Your task to perform on an android device: turn smart compose on in the gmail app Image 0: 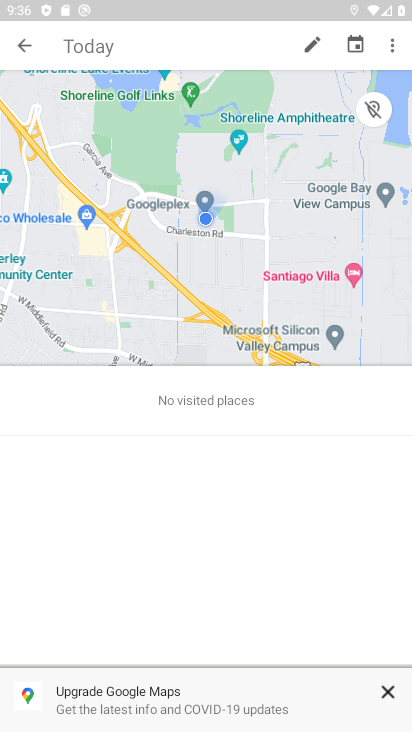
Step 0: press home button
Your task to perform on an android device: turn smart compose on in the gmail app Image 1: 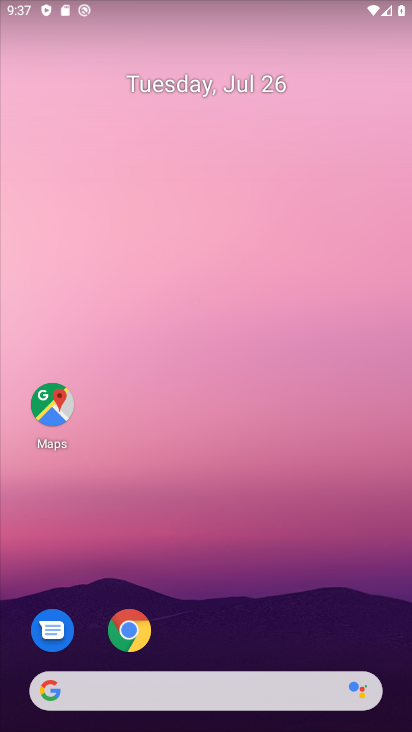
Step 1: drag from (389, 633) to (361, 100)
Your task to perform on an android device: turn smart compose on in the gmail app Image 2: 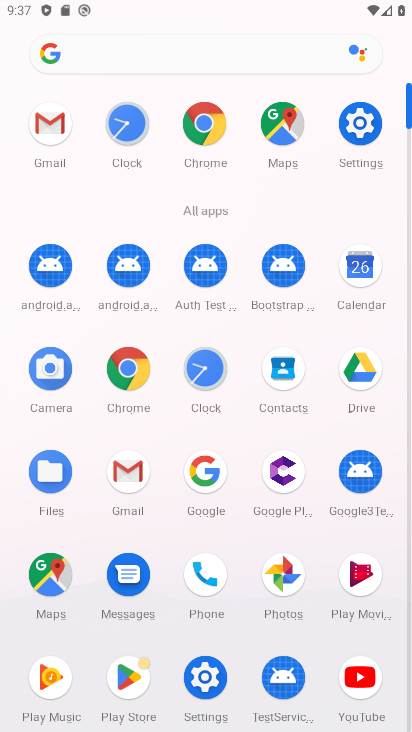
Step 2: click (125, 471)
Your task to perform on an android device: turn smart compose on in the gmail app Image 3: 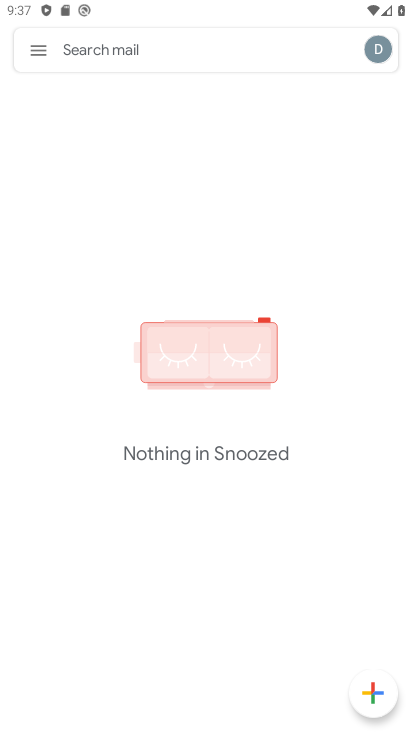
Step 3: click (33, 52)
Your task to perform on an android device: turn smart compose on in the gmail app Image 4: 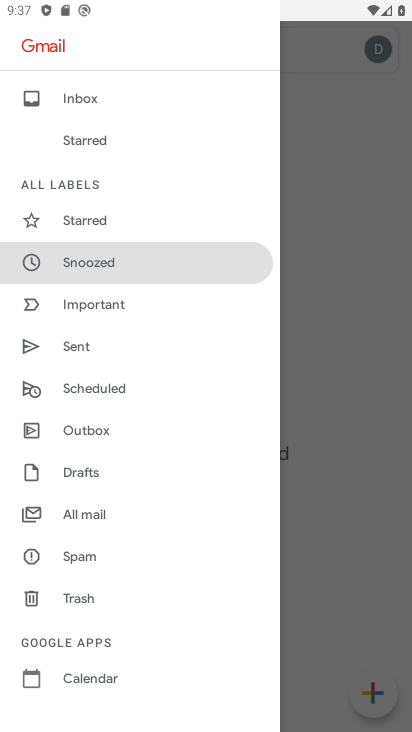
Step 4: drag from (180, 640) to (206, 346)
Your task to perform on an android device: turn smart compose on in the gmail app Image 5: 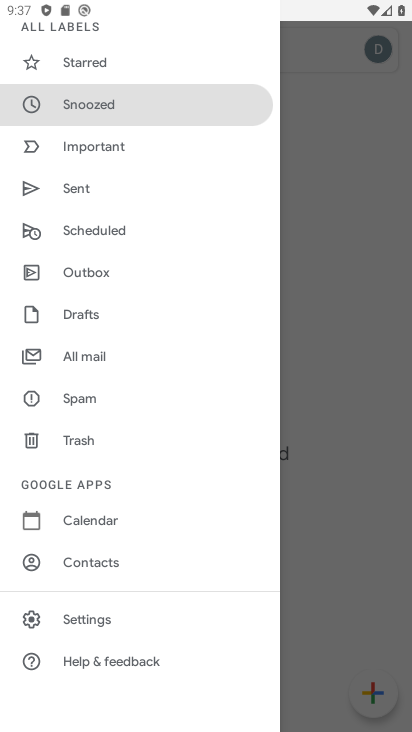
Step 5: click (72, 612)
Your task to perform on an android device: turn smart compose on in the gmail app Image 6: 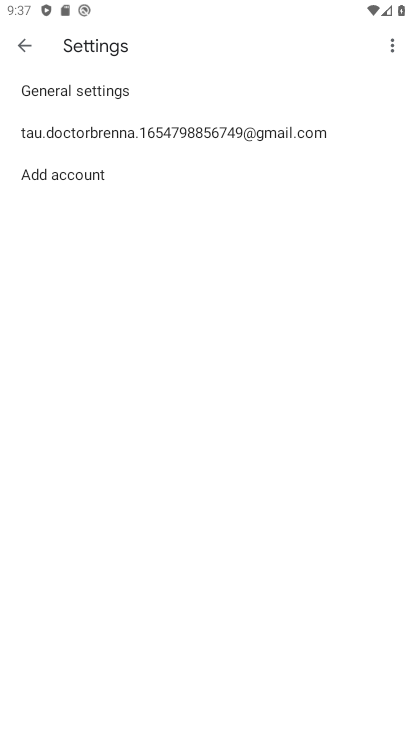
Step 6: click (142, 128)
Your task to perform on an android device: turn smart compose on in the gmail app Image 7: 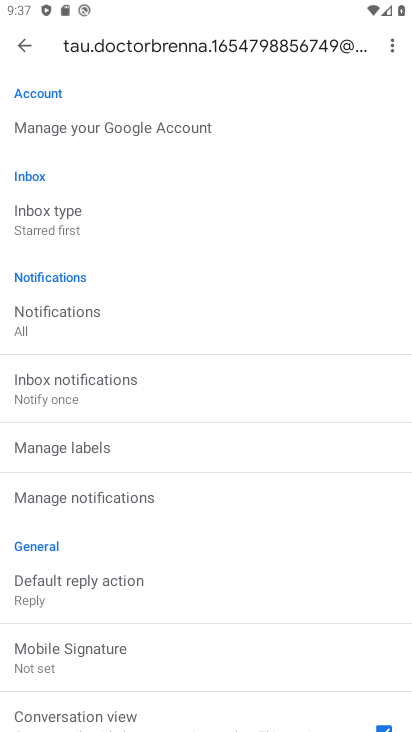
Step 7: task complete